Your task to perform on an android device: Open Android settings Image 0: 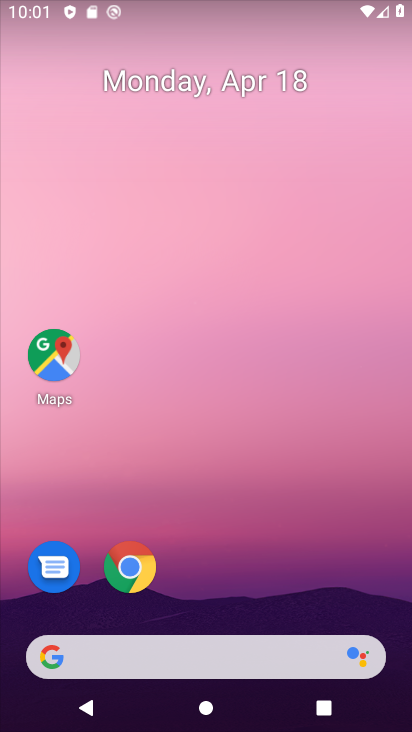
Step 0: drag from (241, 513) to (254, 59)
Your task to perform on an android device: Open Android settings Image 1: 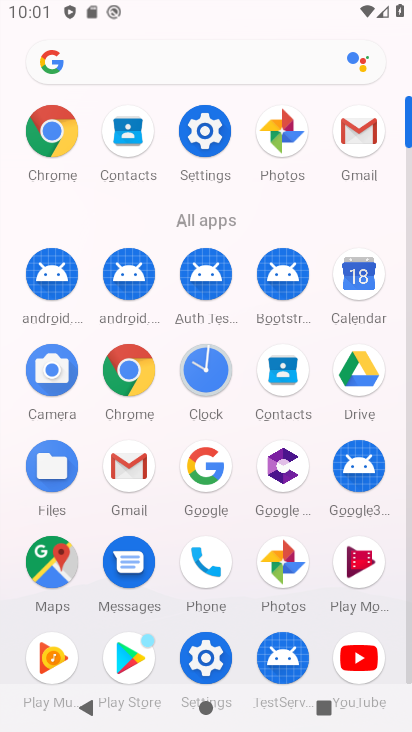
Step 1: click (203, 130)
Your task to perform on an android device: Open Android settings Image 2: 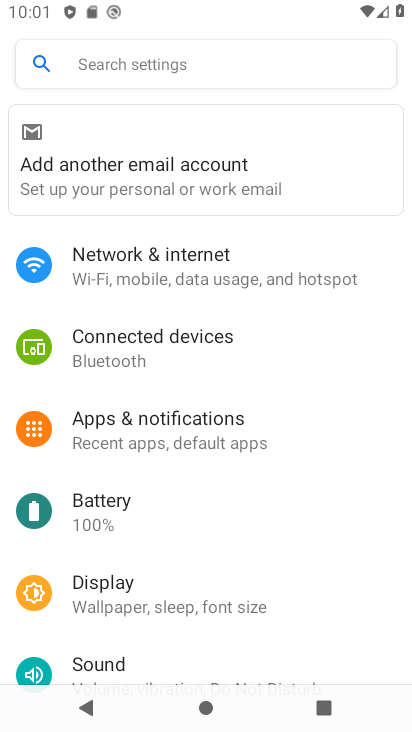
Step 2: drag from (134, 655) to (131, 72)
Your task to perform on an android device: Open Android settings Image 3: 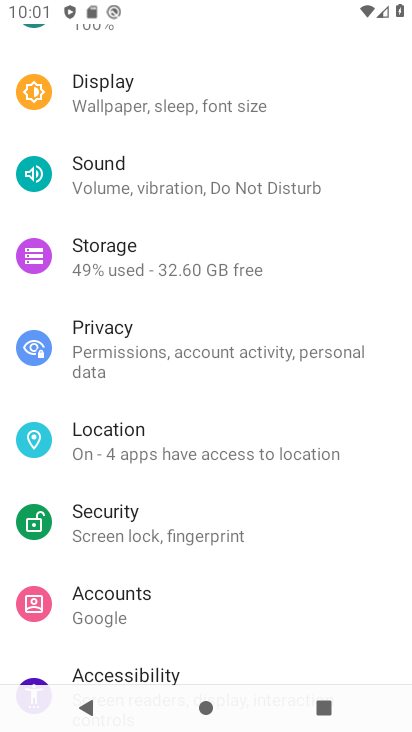
Step 3: drag from (146, 608) to (148, 123)
Your task to perform on an android device: Open Android settings Image 4: 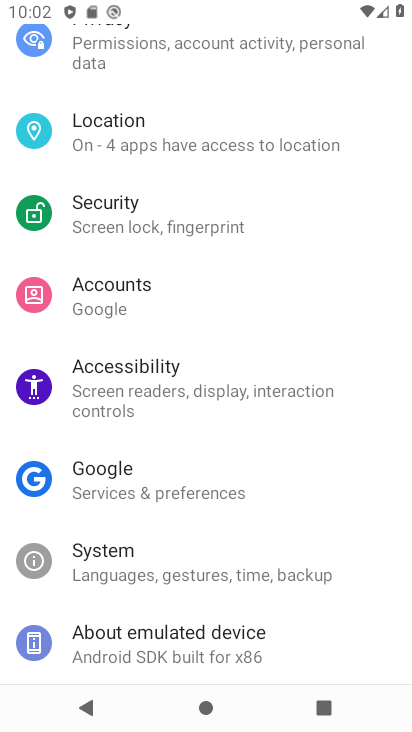
Step 4: click (129, 628)
Your task to perform on an android device: Open Android settings Image 5: 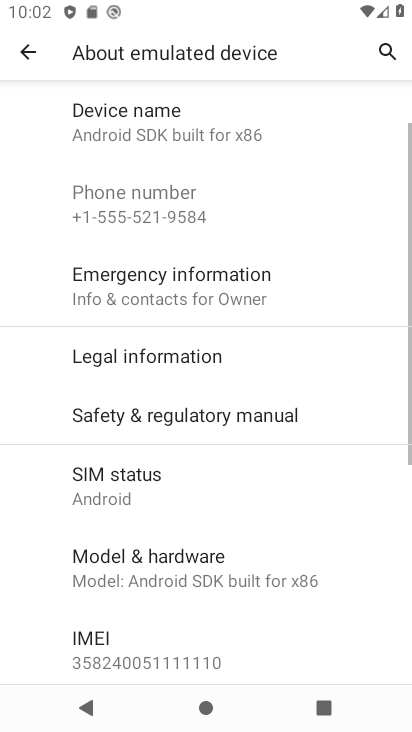
Step 5: drag from (135, 626) to (155, 204)
Your task to perform on an android device: Open Android settings Image 6: 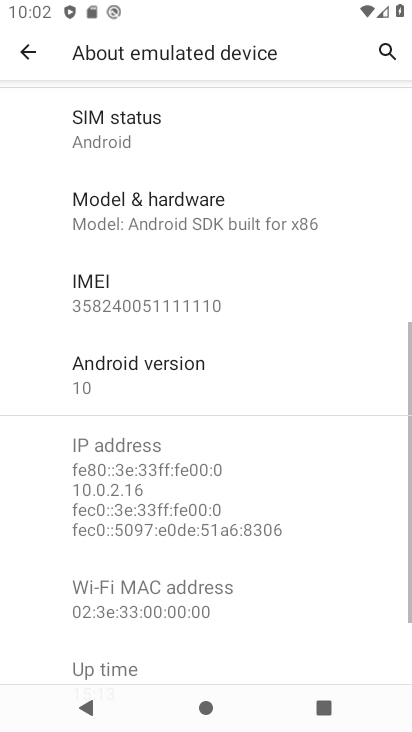
Step 6: drag from (144, 564) to (154, 165)
Your task to perform on an android device: Open Android settings Image 7: 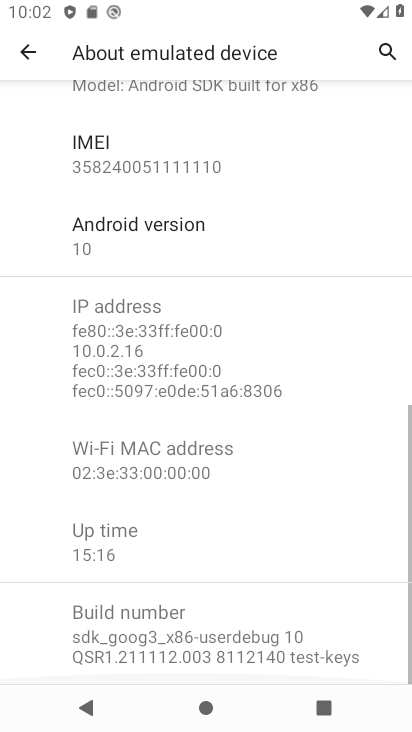
Step 7: drag from (154, 149) to (116, 575)
Your task to perform on an android device: Open Android settings Image 8: 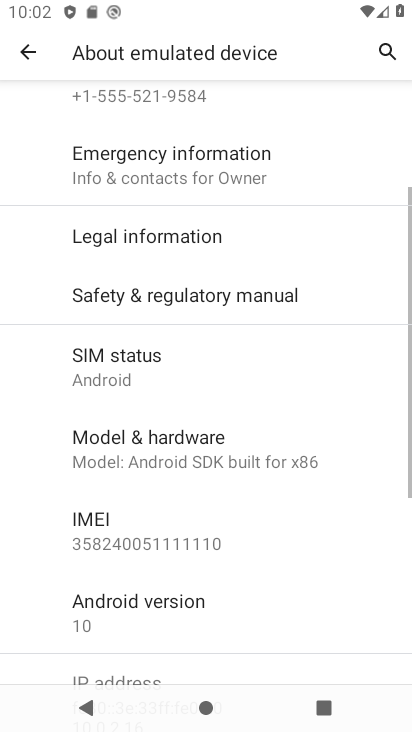
Step 8: click (119, 603)
Your task to perform on an android device: Open Android settings Image 9: 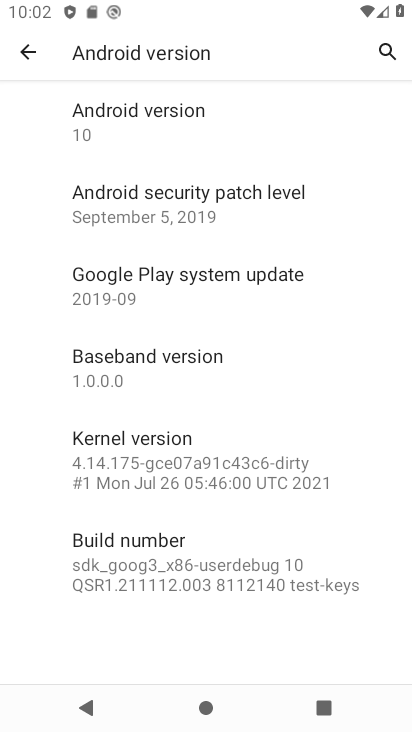
Step 9: click (21, 47)
Your task to perform on an android device: Open Android settings Image 10: 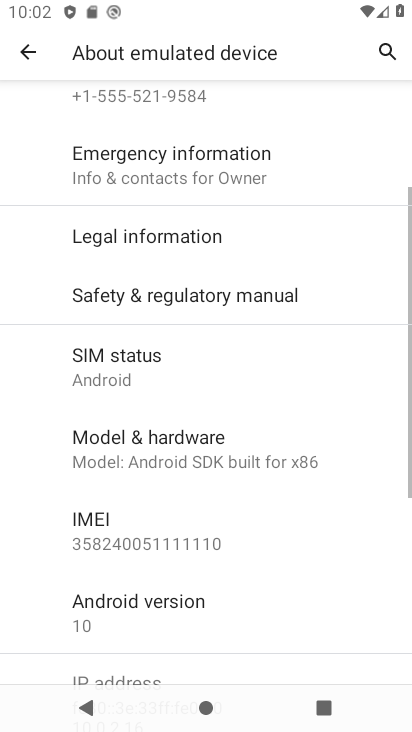
Step 10: drag from (188, 263) to (163, 479)
Your task to perform on an android device: Open Android settings Image 11: 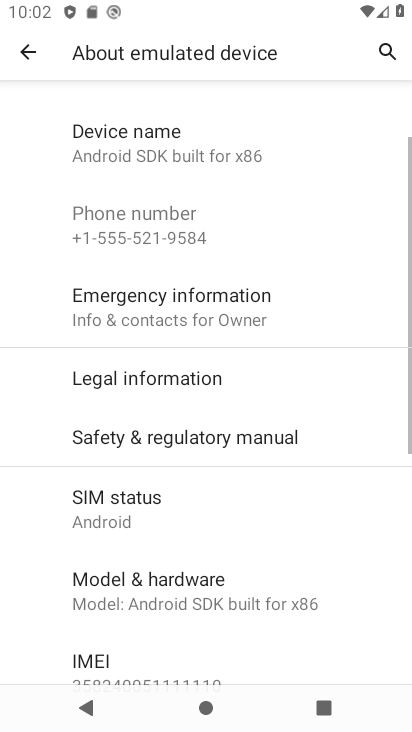
Step 11: click (121, 506)
Your task to perform on an android device: Open Android settings Image 12: 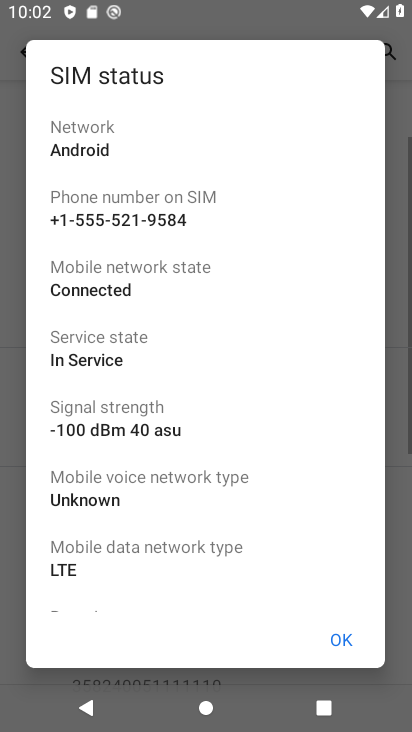
Step 12: click (344, 638)
Your task to perform on an android device: Open Android settings Image 13: 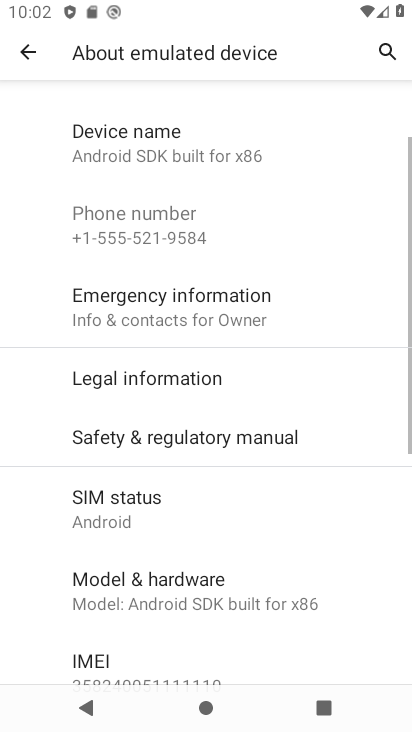
Step 13: task complete